Your task to perform on an android device: check out phone information Image 0: 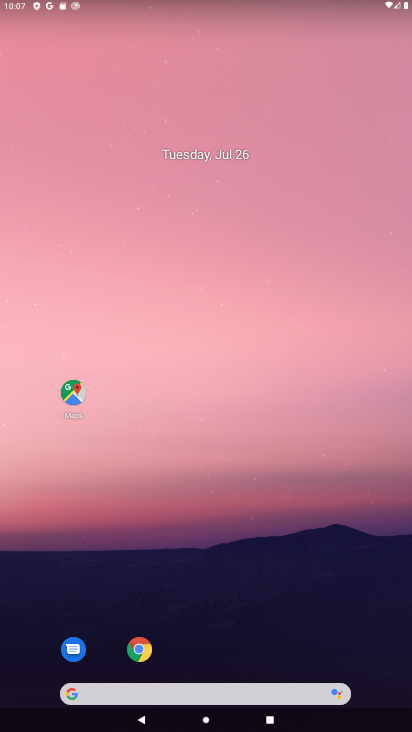
Step 0: drag from (247, 689) to (255, 296)
Your task to perform on an android device: check out phone information Image 1: 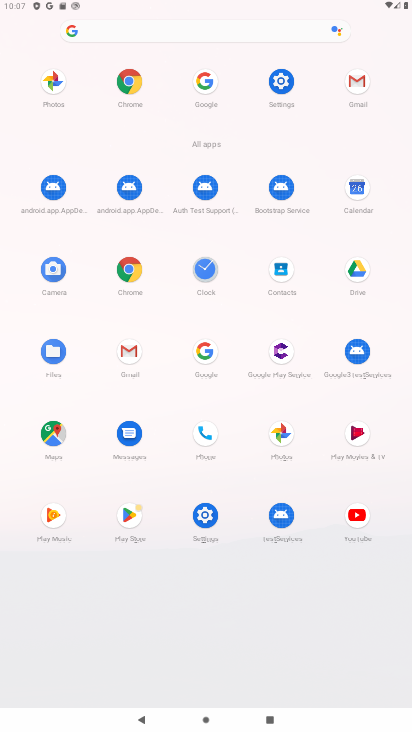
Step 1: click (206, 435)
Your task to perform on an android device: check out phone information Image 2: 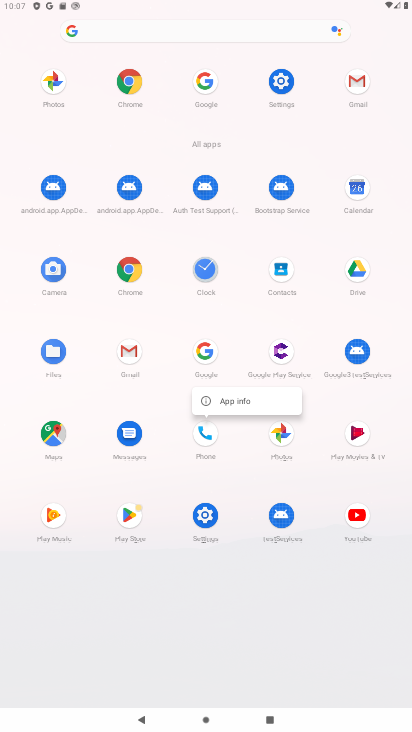
Step 2: click (218, 399)
Your task to perform on an android device: check out phone information Image 3: 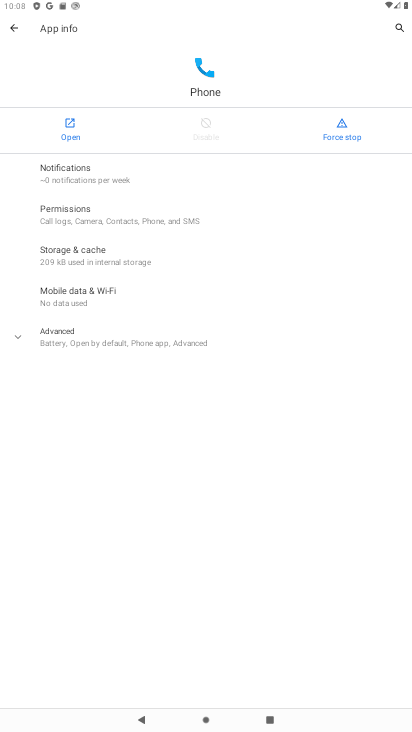
Step 3: click (79, 338)
Your task to perform on an android device: check out phone information Image 4: 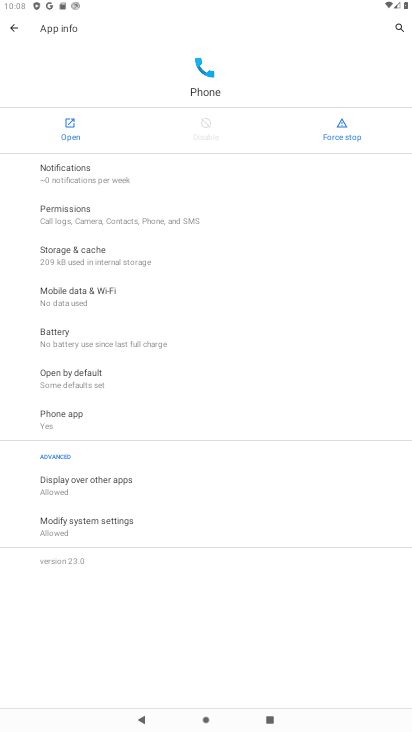
Step 4: task complete